Your task to perform on an android device: Open Chrome and go to settings Image 0: 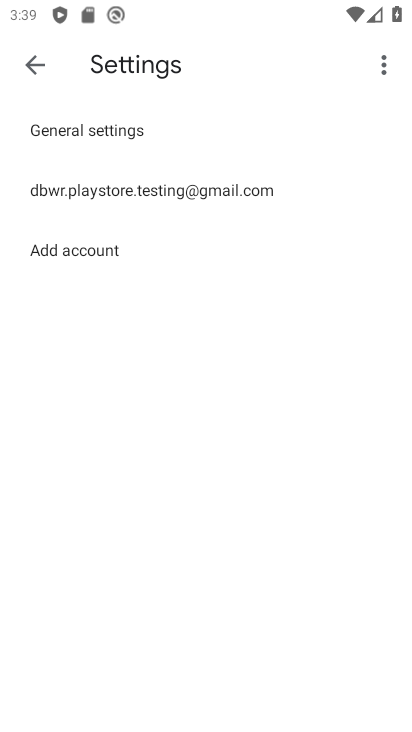
Step 0: press home button
Your task to perform on an android device: Open Chrome and go to settings Image 1: 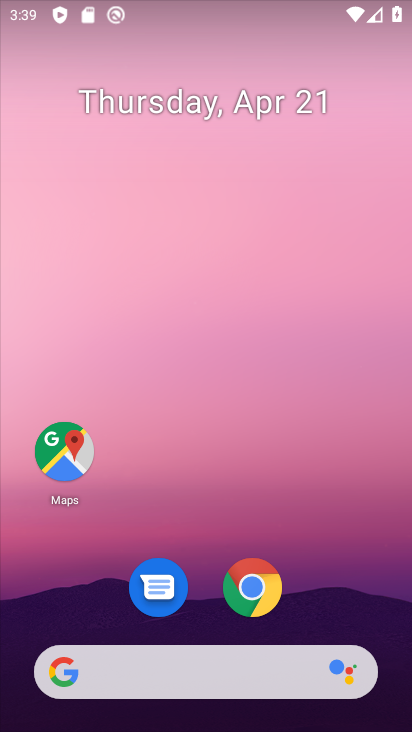
Step 1: click (251, 595)
Your task to perform on an android device: Open Chrome and go to settings Image 2: 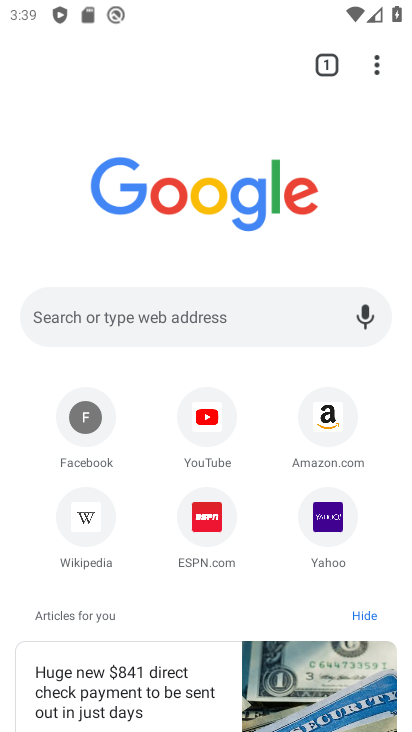
Step 2: click (376, 60)
Your task to perform on an android device: Open Chrome and go to settings Image 3: 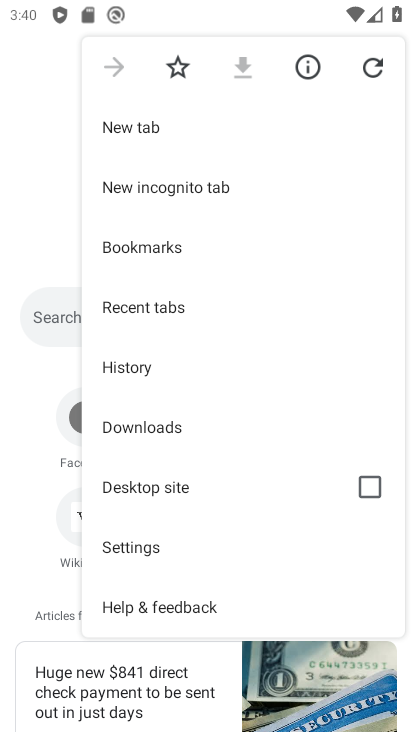
Step 3: click (118, 546)
Your task to perform on an android device: Open Chrome and go to settings Image 4: 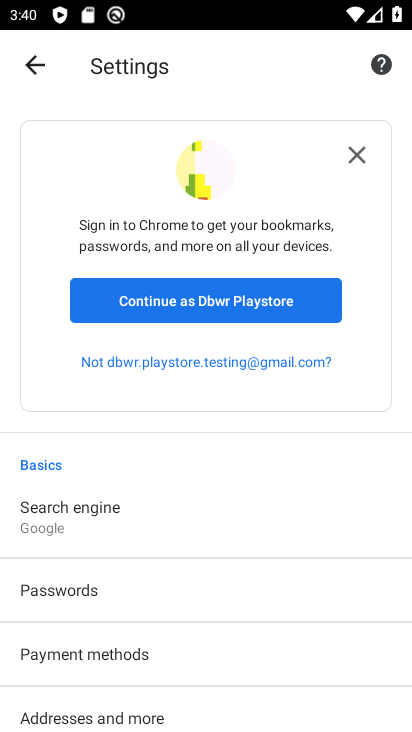
Step 4: task complete